Your task to perform on an android device: install app "ZOOM Cloud Meetings" Image 0: 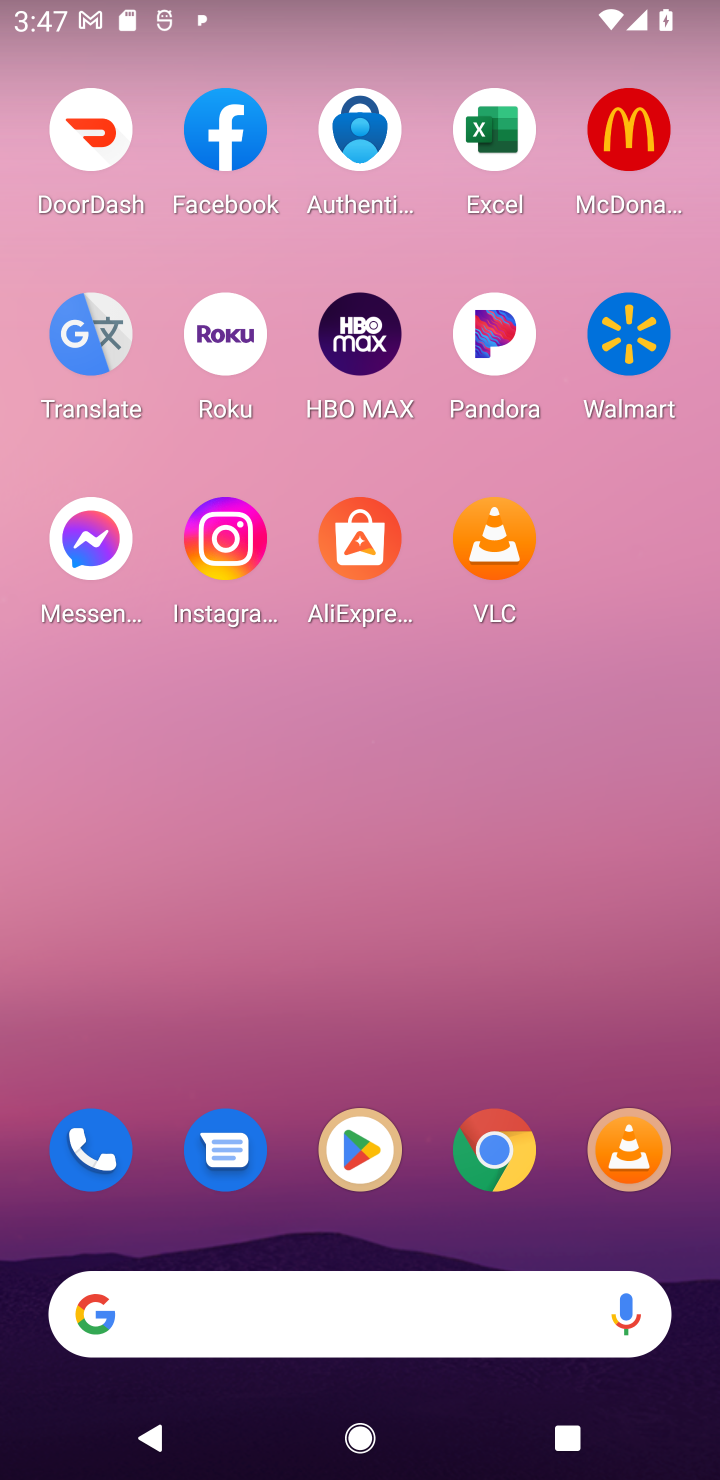
Step 0: click (359, 1146)
Your task to perform on an android device: install app "ZOOM Cloud Meetings" Image 1: 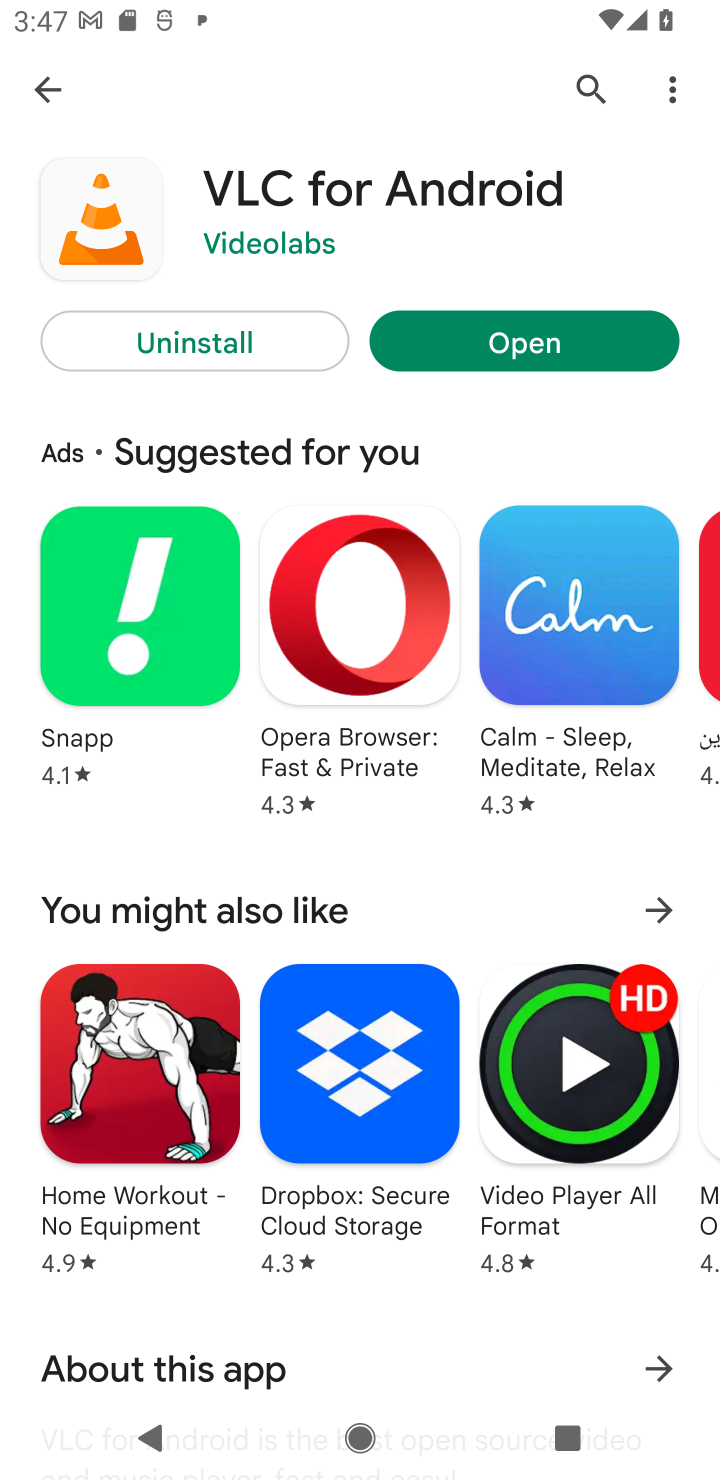
Step 1: click (577, 75)
Your task to perform on an android device: install app "ZOOM Cloud Meetings" Image 2: 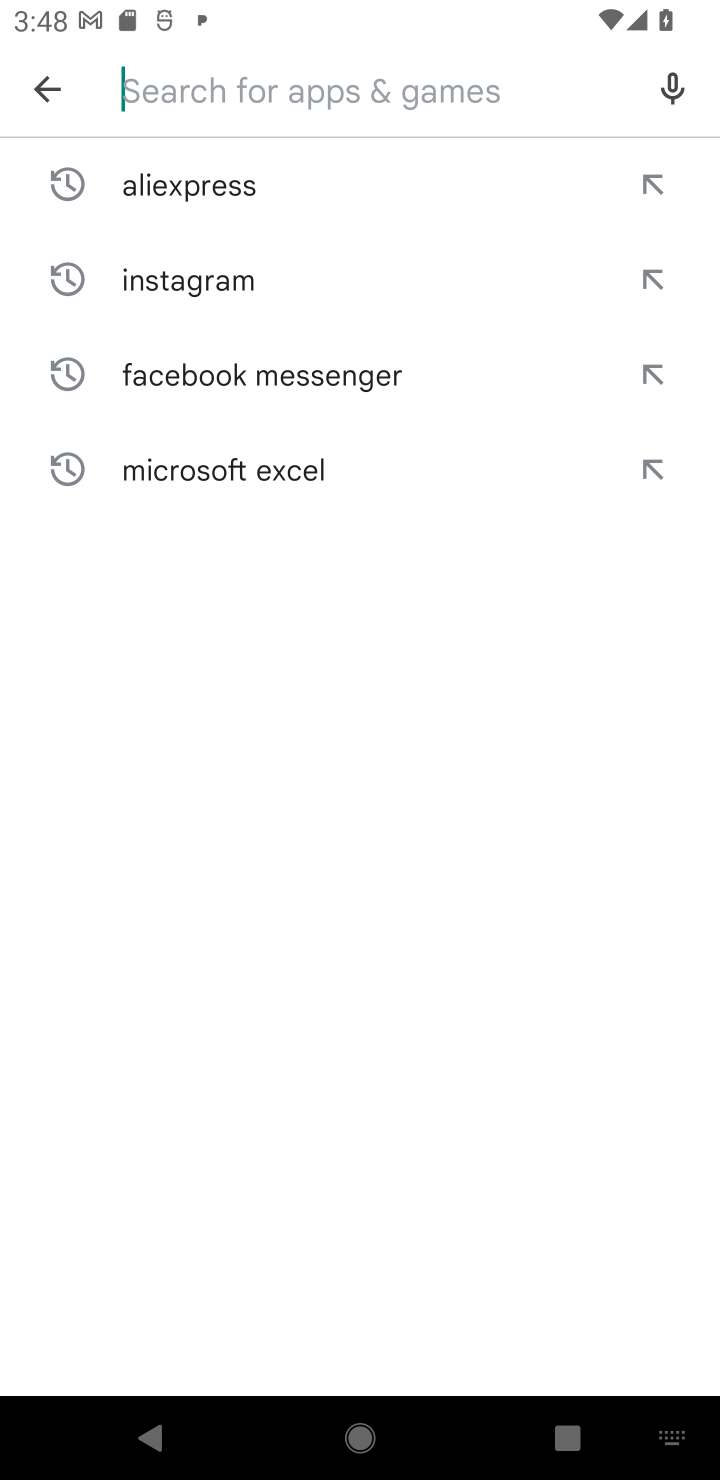
Step 2: type "ZOOM Cloud Meetings"
Your task to perform on an android device: install app "ZOOM Cloud Meetings" Image 3: 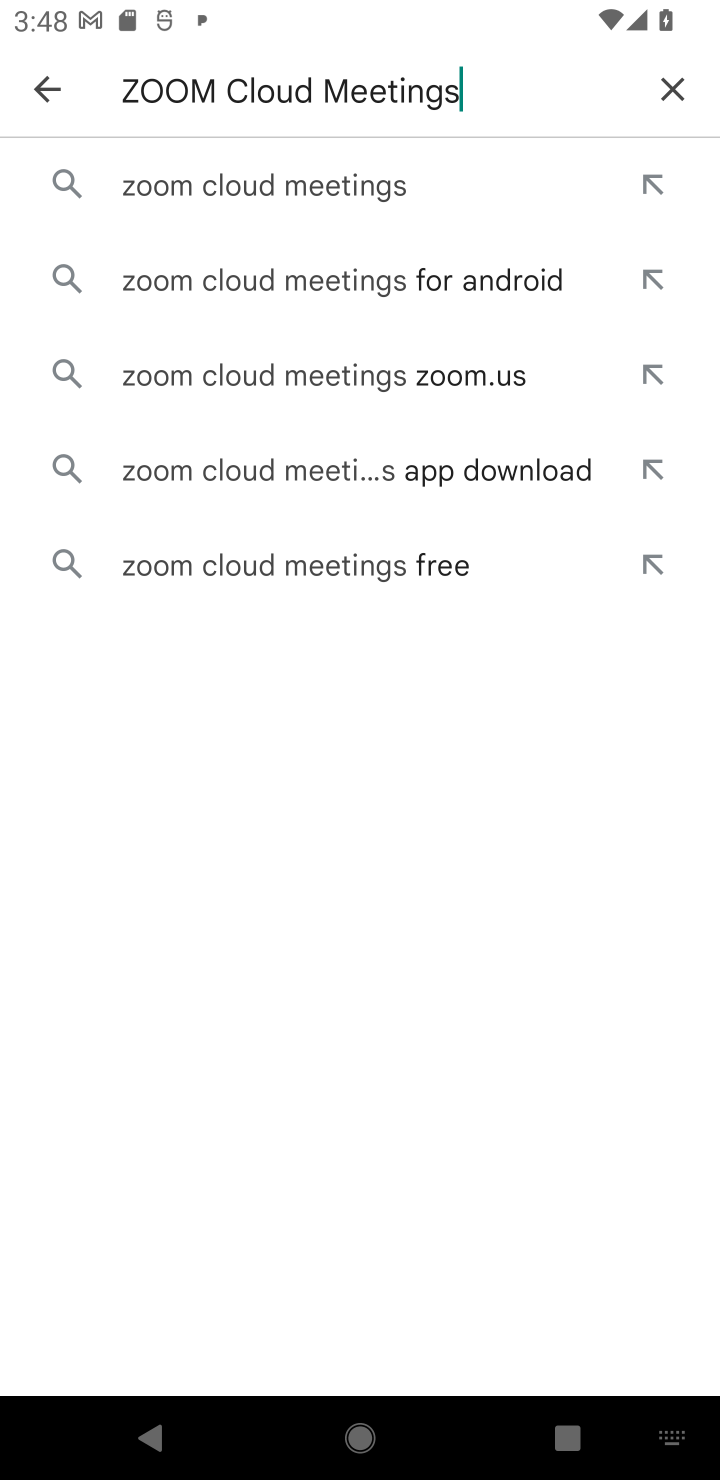
Step 3: click (268, 196)
Your task to perform on an android device: install app "ZOOM Cloud Meetings" Image 4: 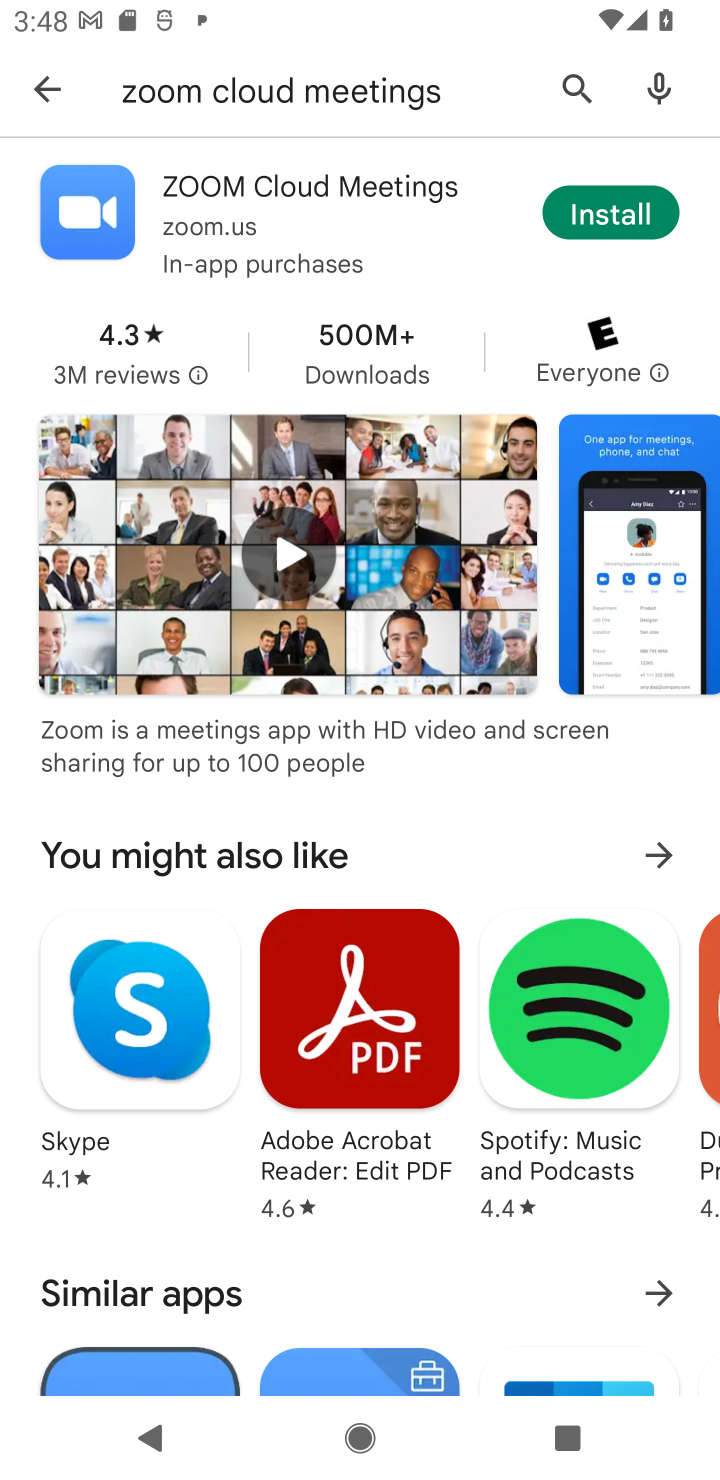
Step 4: click (612, 213)
Your task to perform on an android device: install app "ZOOM Cloud Meetings" Image 5: 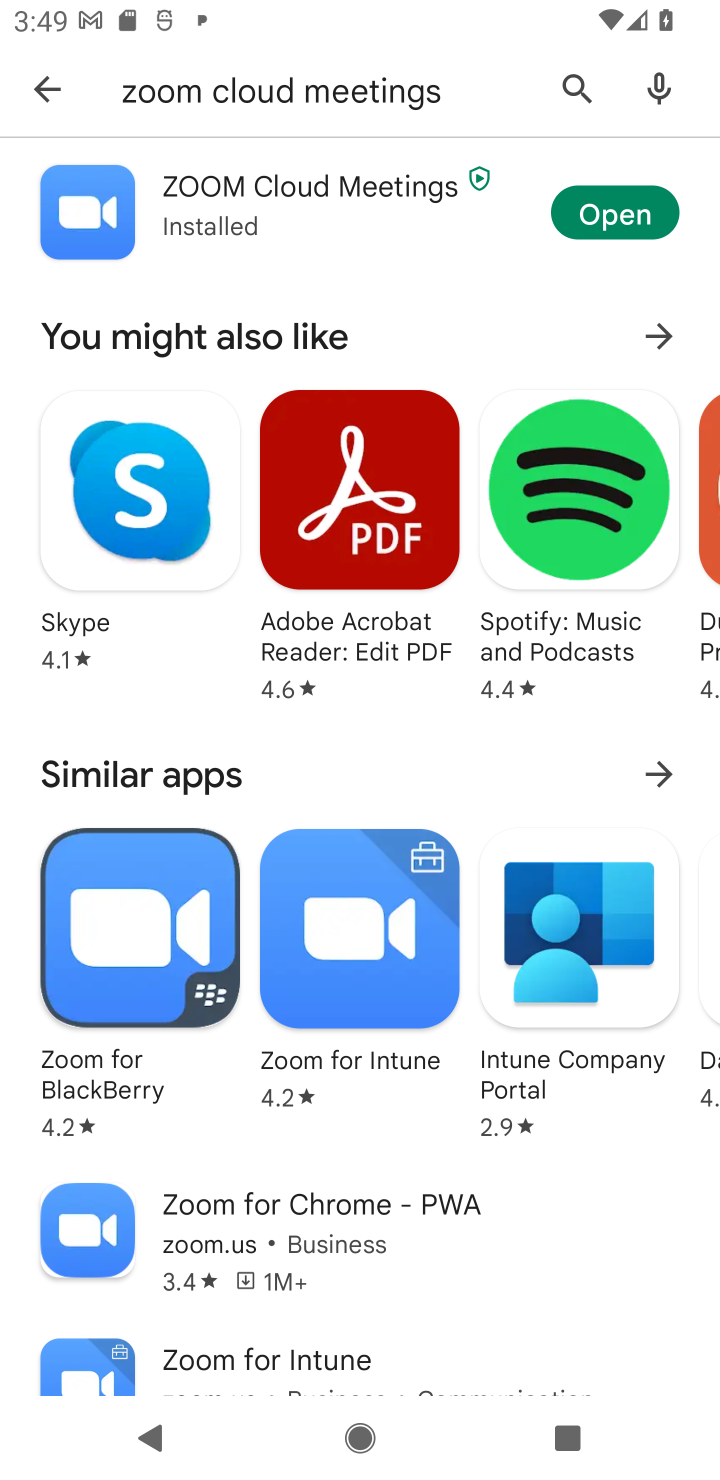
Step 5: task complete